Your task to perform on an android device: View the shopping cart on ebay. Search for "dell alienware" on ebay, select the first entry, and add it to the cart. Image 0: 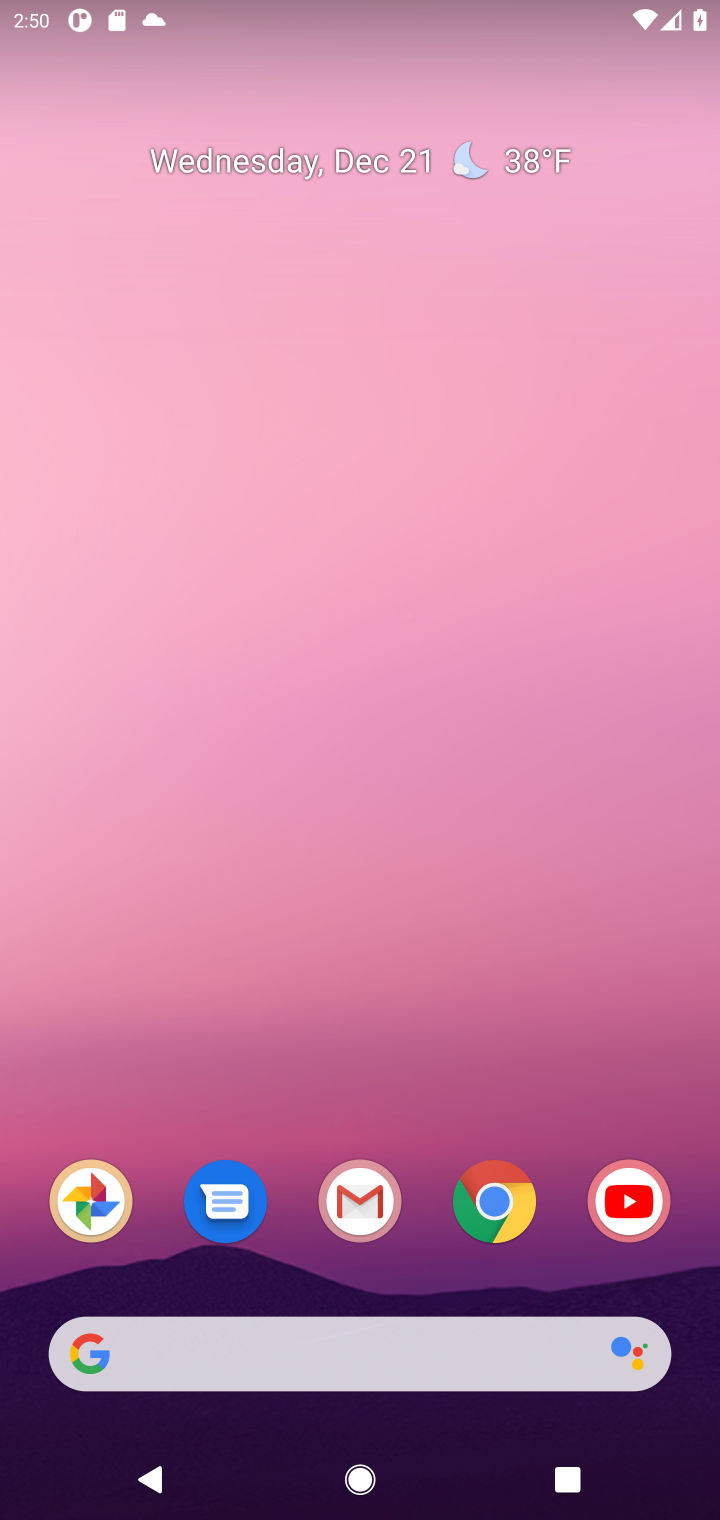
Step 0: click (490, 1207)
Your task to perform on an android device: View the shopping cart on ebay. Search for "dell alienware" on ebay, select the first entry, and add it to the cart. Image 1: 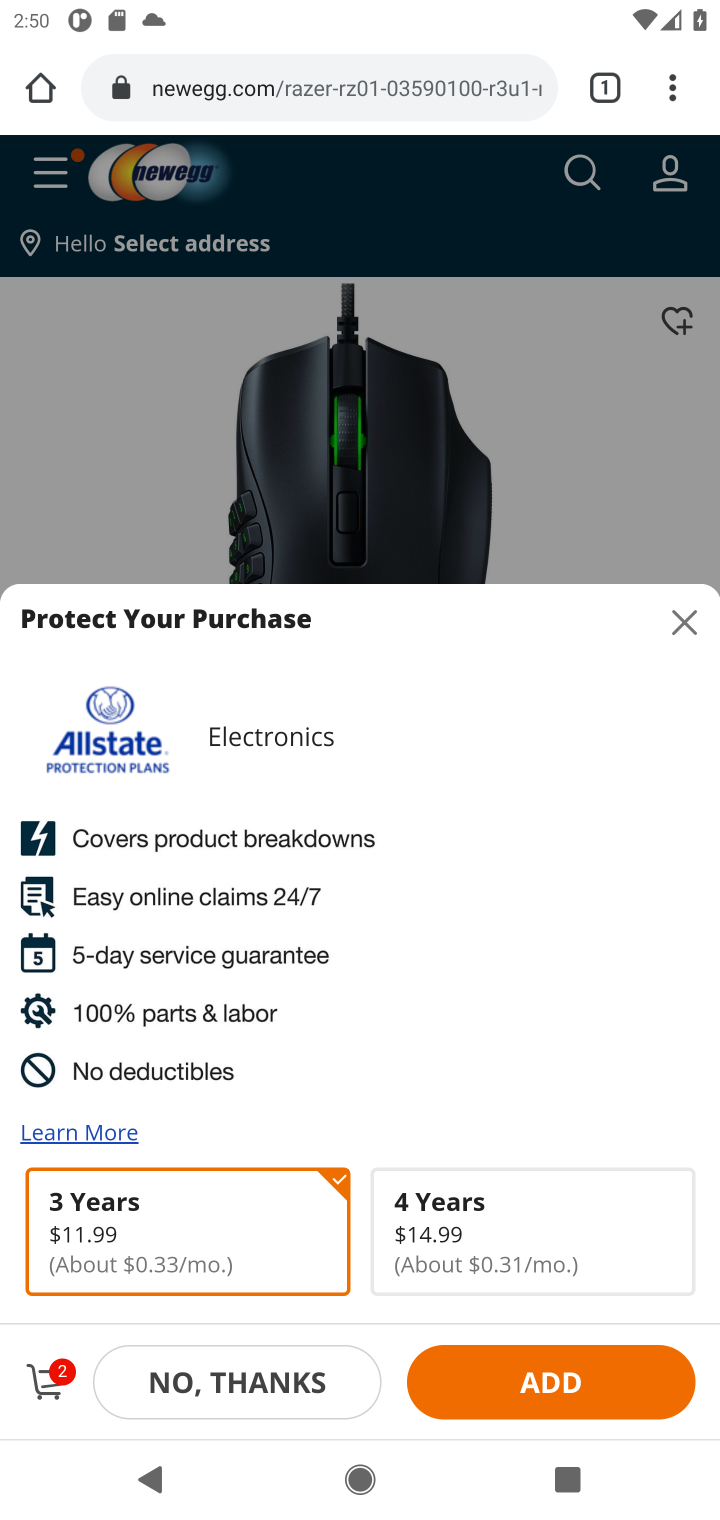
Step 1: click (279, 95)
Your task to perform on an android device: View the shopping cart on ebay. Search for "dell alienware" on ebay, select the first entry, and add it to the cart. Image 2: 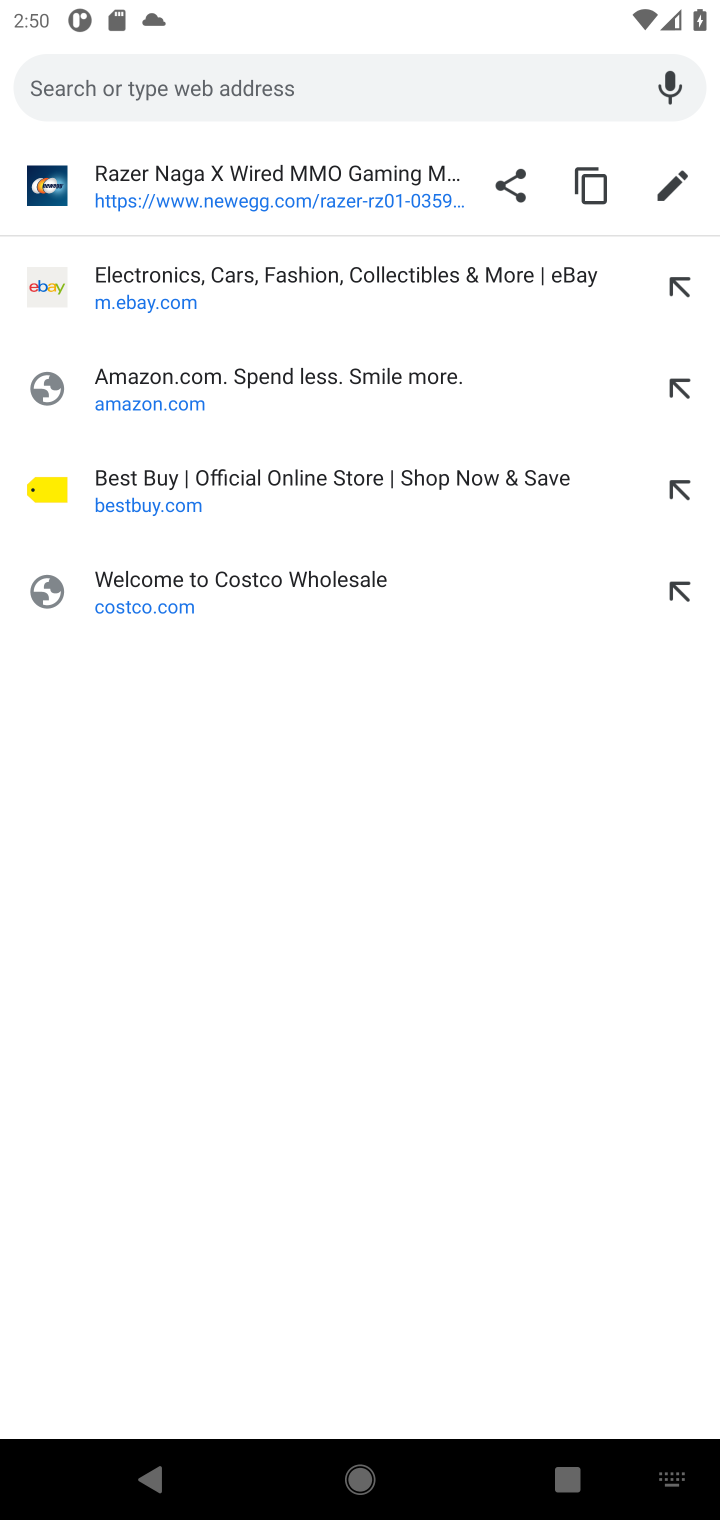
Step 2: click (130, 301)
Your task to perform on an android device: View the shopping cart on ebay. Search for "dell alienware" on ebay, select the first entry, and add it to the cart. Image 3: 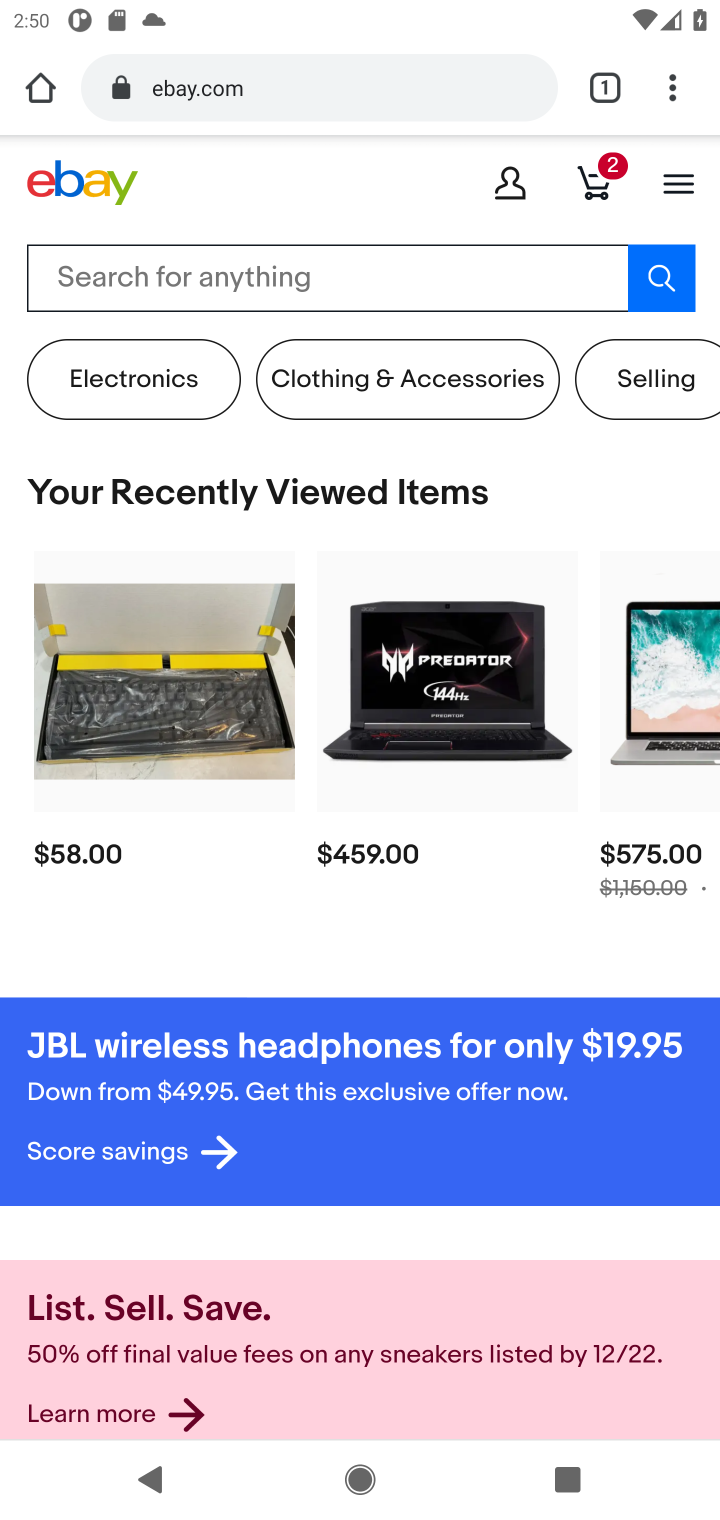
Step 3: click (598, 181)
Your task to perform on an android device: View the shopping cart on ebay. Search for "dell alienware" on ebay, select the first entry, and add it to the cart. Image 4: 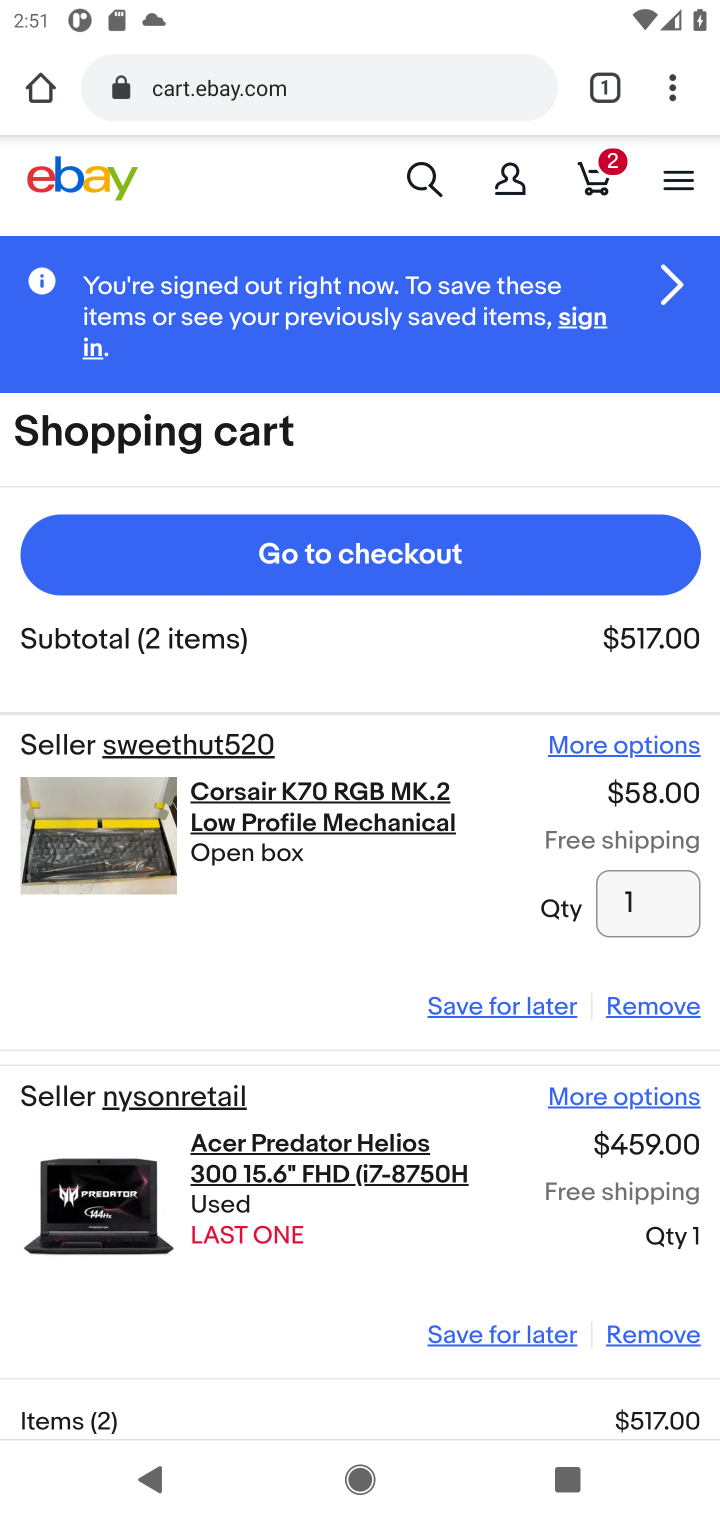
Step 4: click (418, 182)
Your task to perform on an android device: View the shopping cart on ebay. Search for "dell alienware" on ebay, select the first entry, and add it to the cart. Image 5: 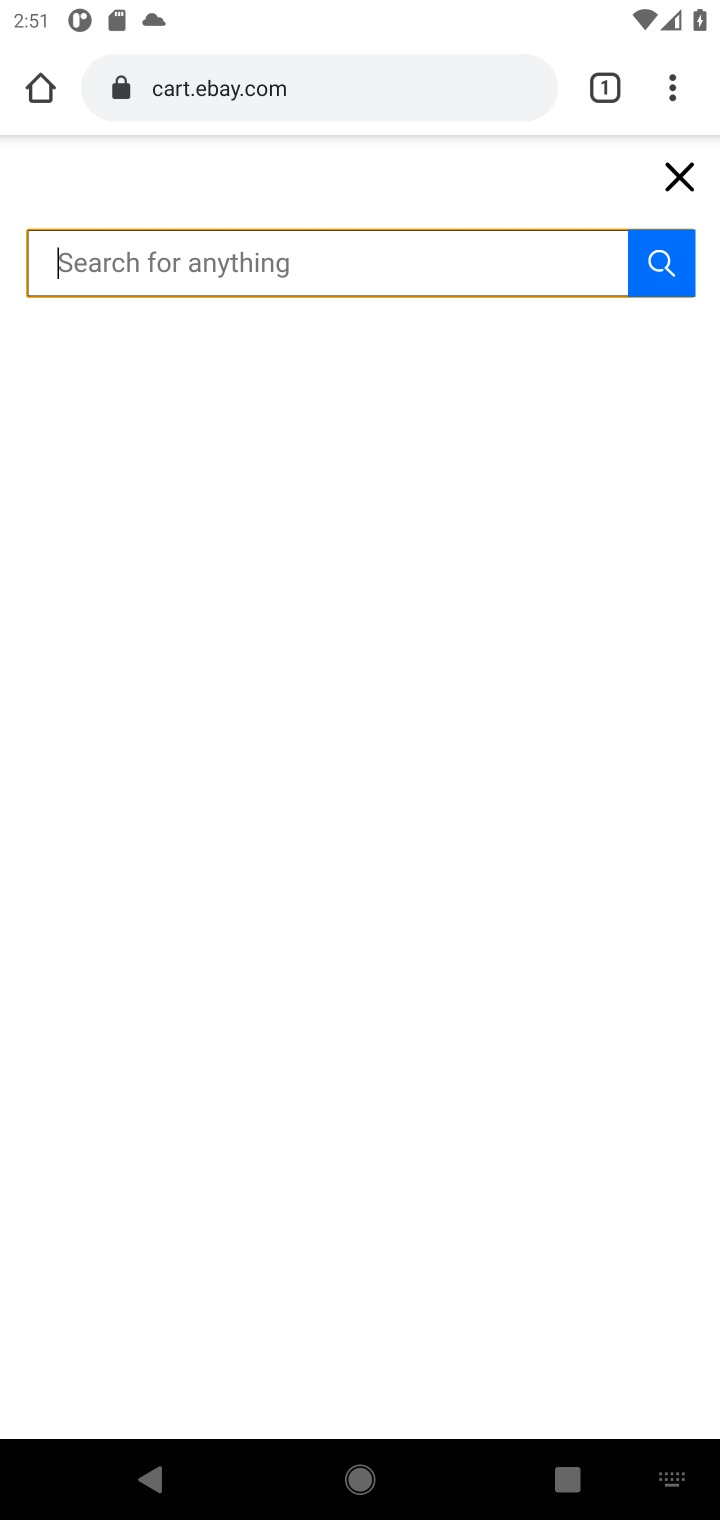
Step 5: type "dell alienware"
Your task to perform on an android device: View the shopping cart on ebay. Search for "dell alienware" on ebay, select the first entry, and add it to the cart. Image 6: 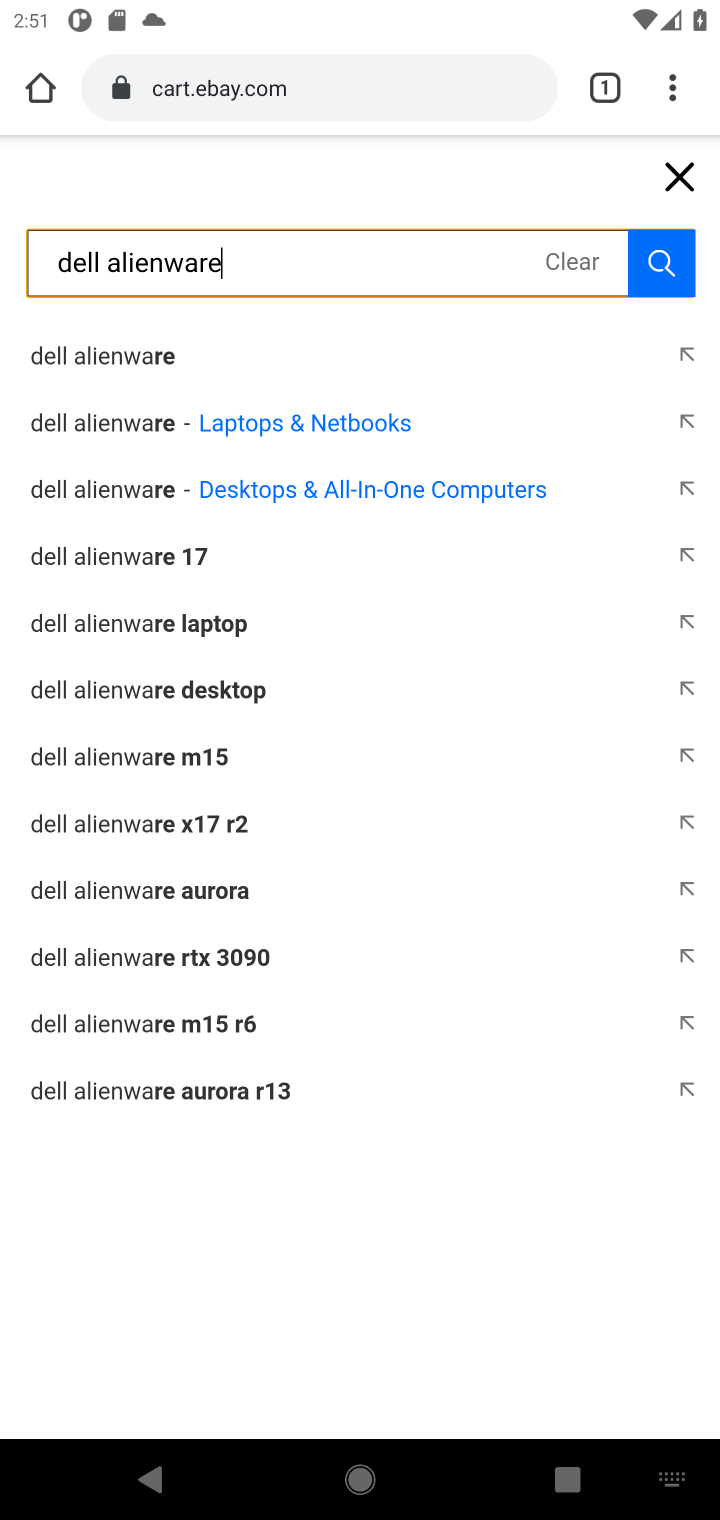
Step 6: click (98, 365)
Your task to perform on an android device: View the shopping cart on ebay. Search for "dell alienware" on ebay, select the first entry, and add it to the cart. Image 7: 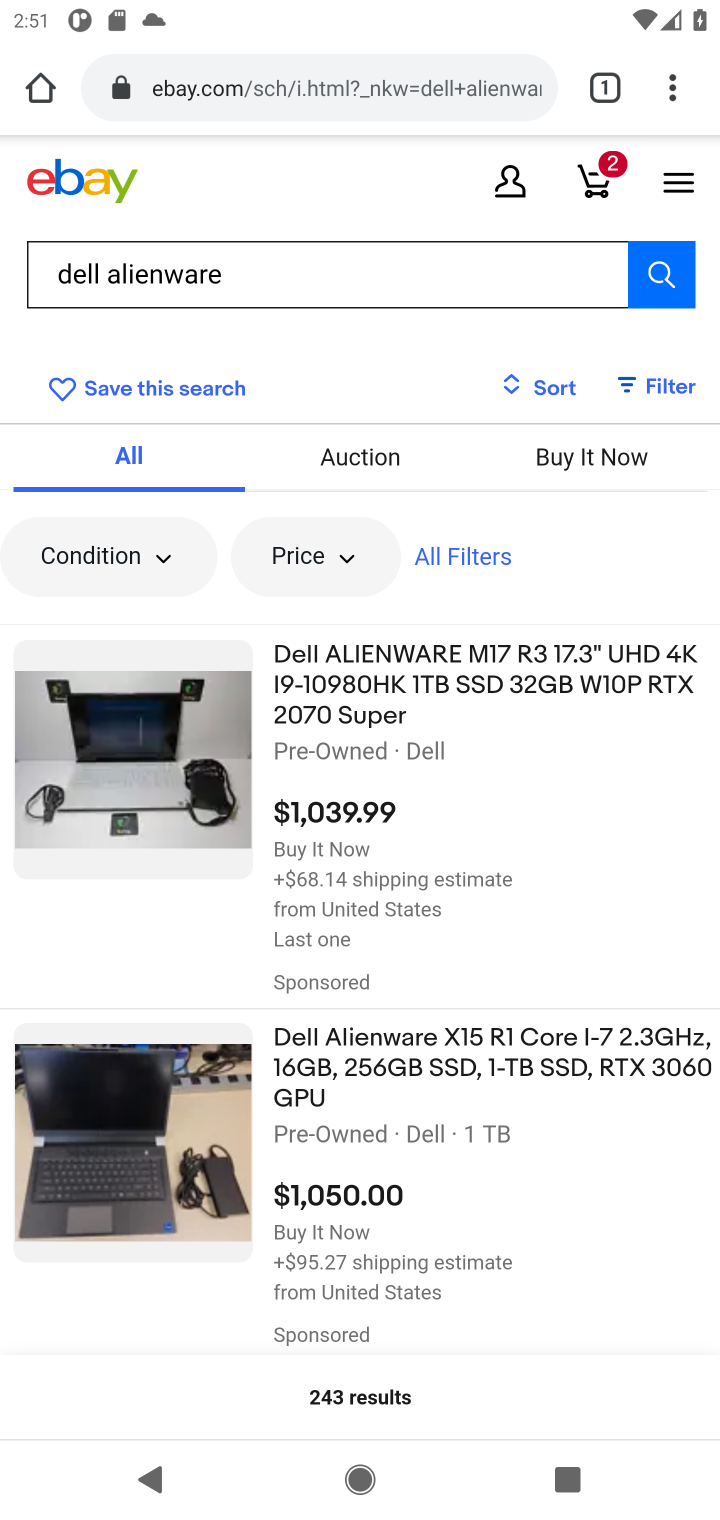
Step 7: click (351, 712)
Your task to perform on an android device: View the shopping cart on ebay. Search for "dell alienware" on ebay, select the first entry, and add it to the cart. Image 8: 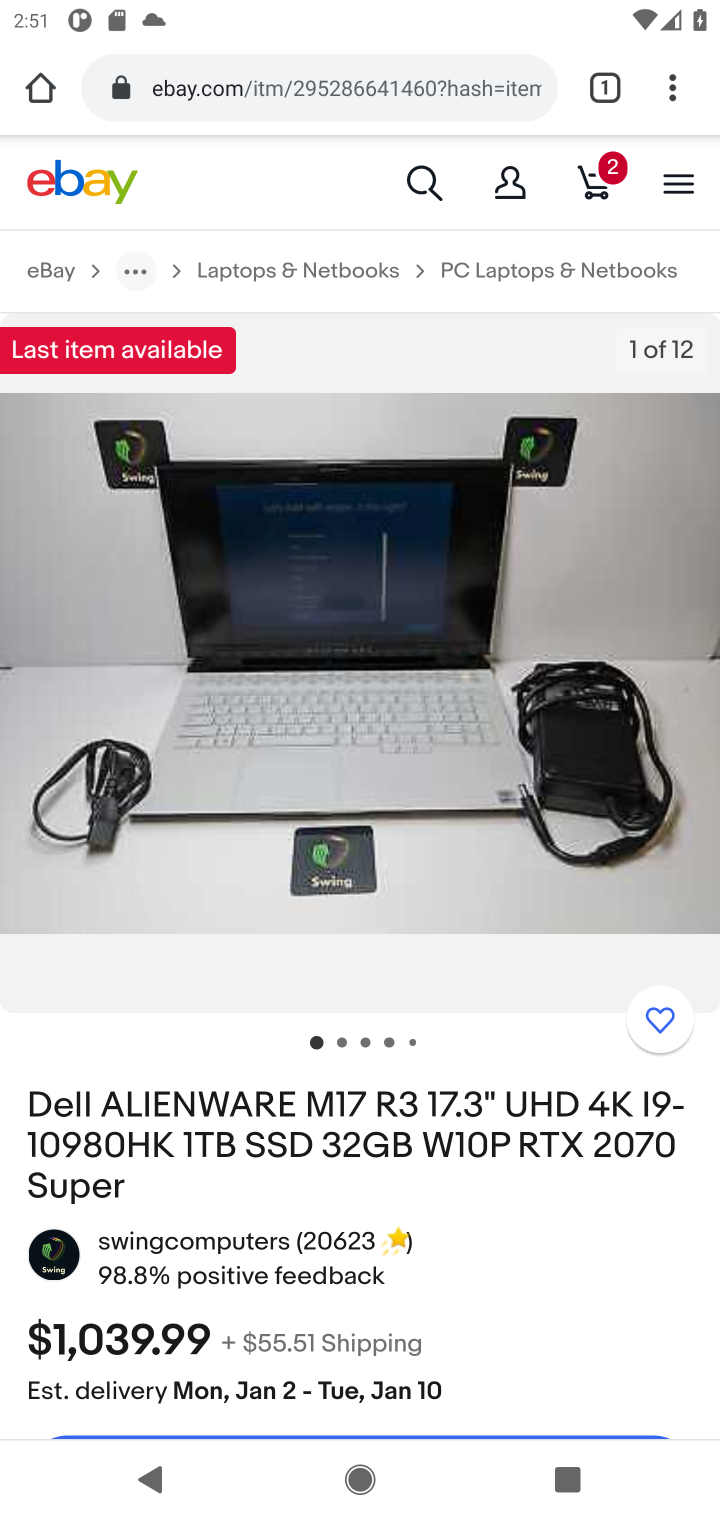
Step 8: drag from (369, 1003) to (333, 531)
Your task to perform on an android device: View the shopping cart on ebay. Search for "dell alienware" on ebay, select the first entry, and add it to the cart. Image 9: 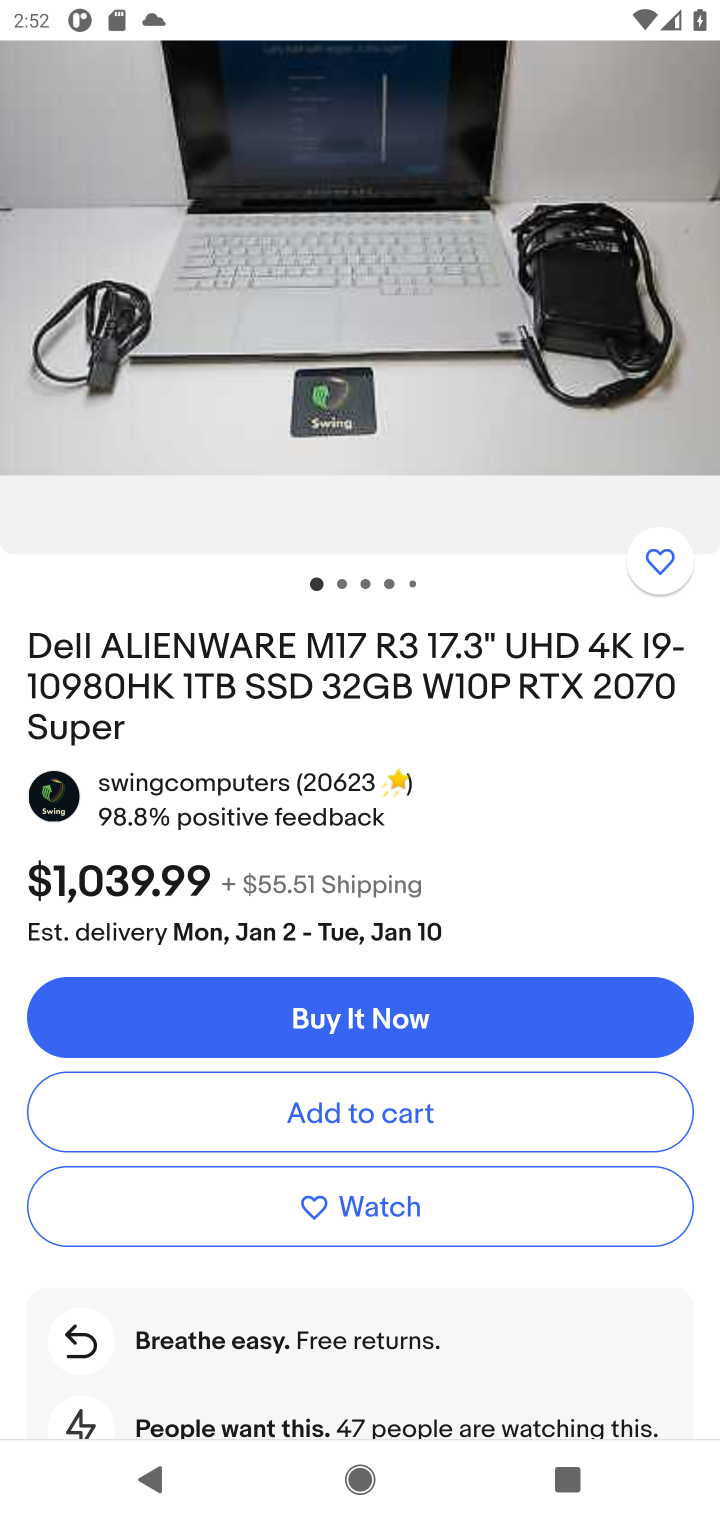
Step 9: click (322, 1107)
Your task to perform on an android device: View the shopping cart on ebay. Search for "dell alienware" on ebay, select the first entry, and add it to the cart. Image 10: 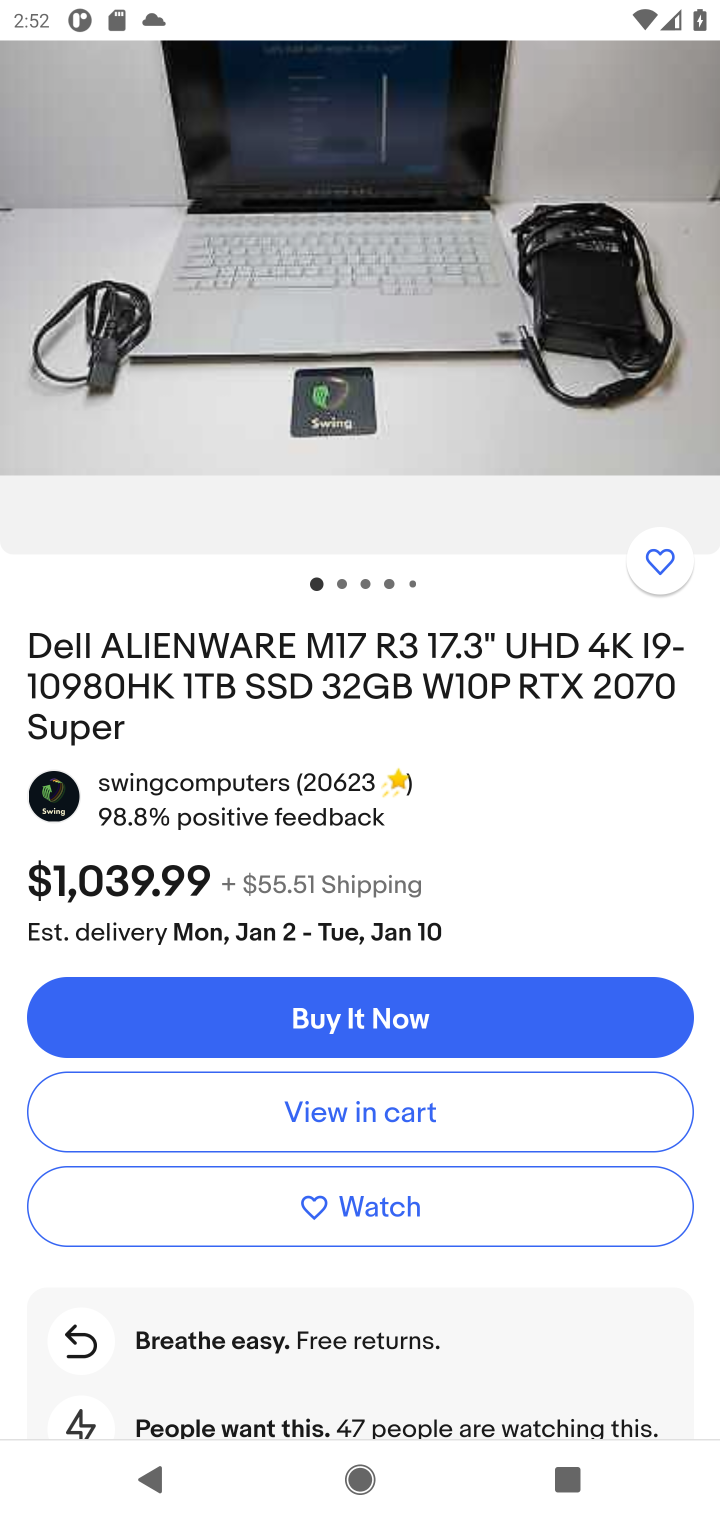
Step 10: task complete